Your task to perform on an android device: empty trash in google photos Image 0: 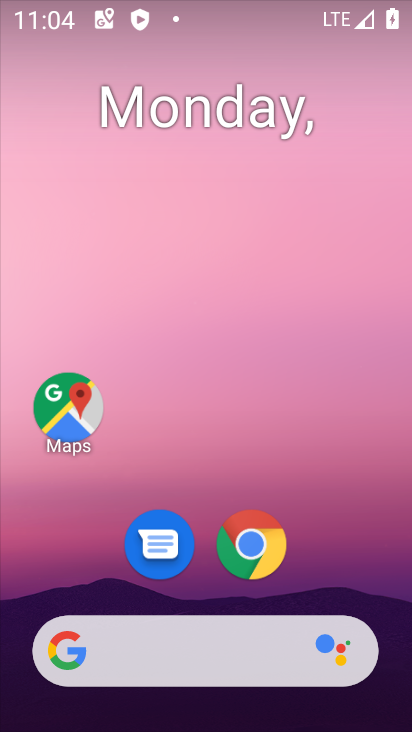
Step 0: drag from (319, 328) to (305, 276)
Your task to perform on an android device: empty trash in google photos Image 1: 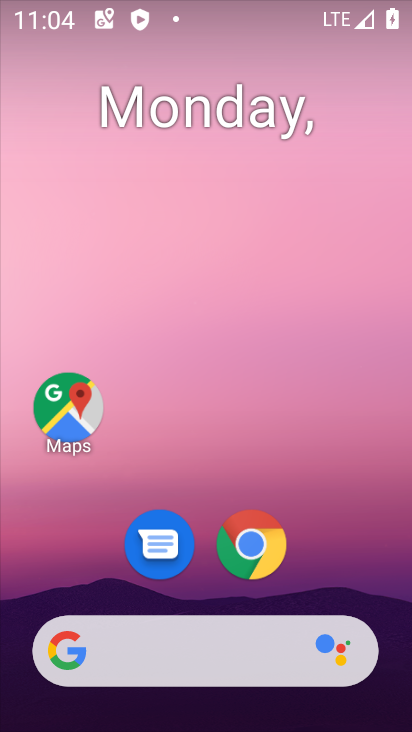
Step 1: drag from (360, 358) to (355, 322)
Your task to perform on an android device: empty trash in google photos Image 2: 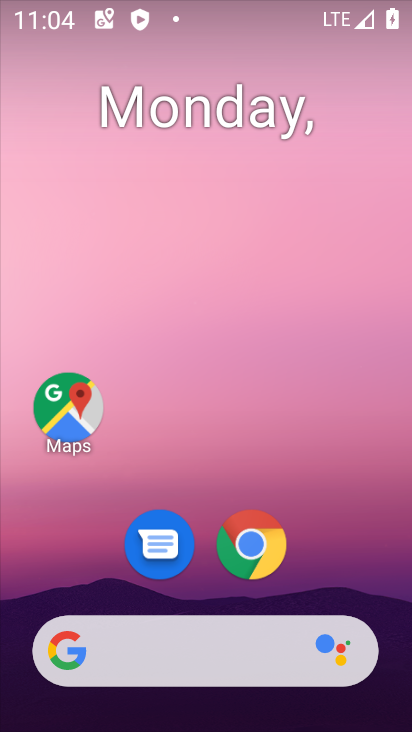
Step 2: drag from (402, 549) to (381, 214)
Your task to perform on an android device: empty trash in google photos Image 3: 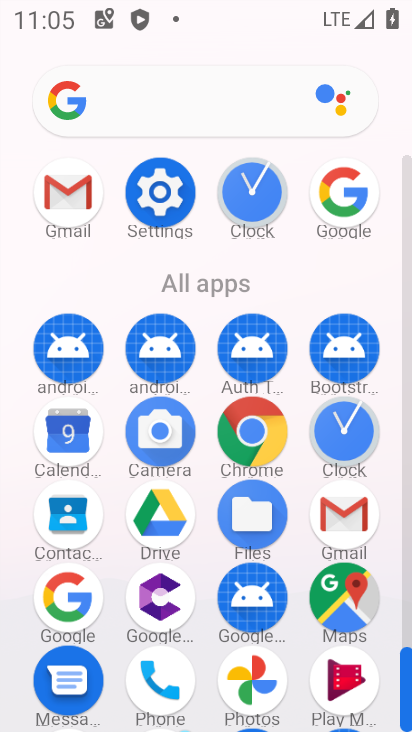
Step 3: click (234, 672)
Your task to perform on an android device: empty trash in google photos Image 4: 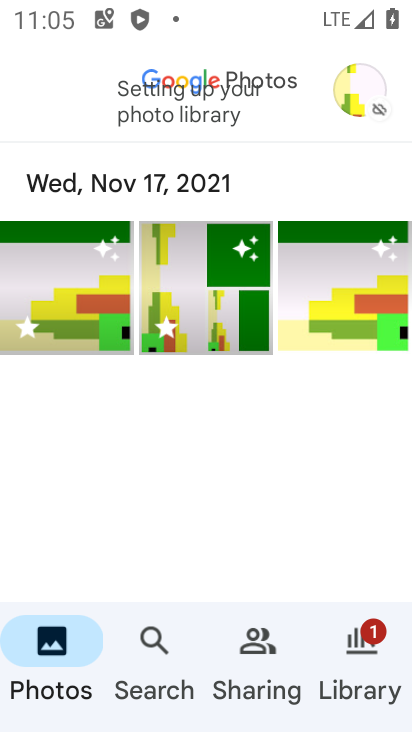
Step 4: click (351, 88)
Your task to perform on an android device: empty trash in google photos Image 5: 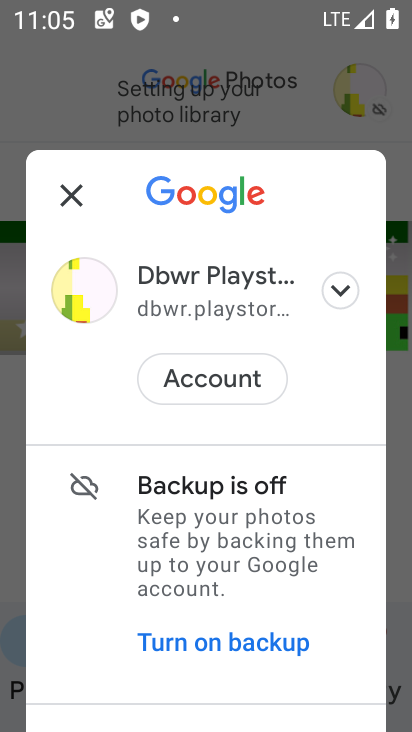
Step 5: click (77, 195)
Your task to perform on an android device: empty trash in google photos Image 6: 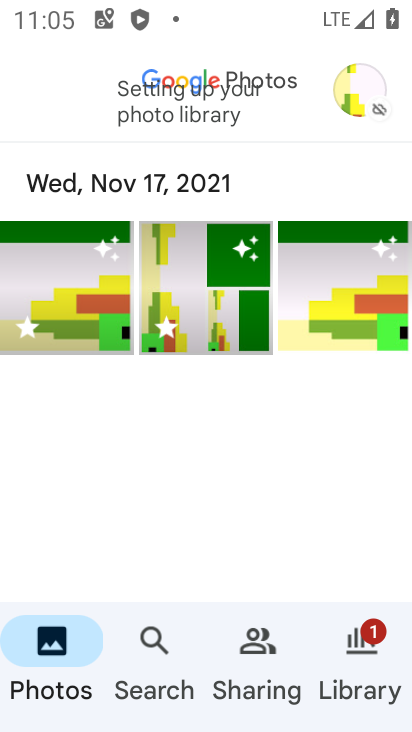
Step 6: task complete